Your task to perform on an android device: Open Youtube and go to "Your channel" Image 0: 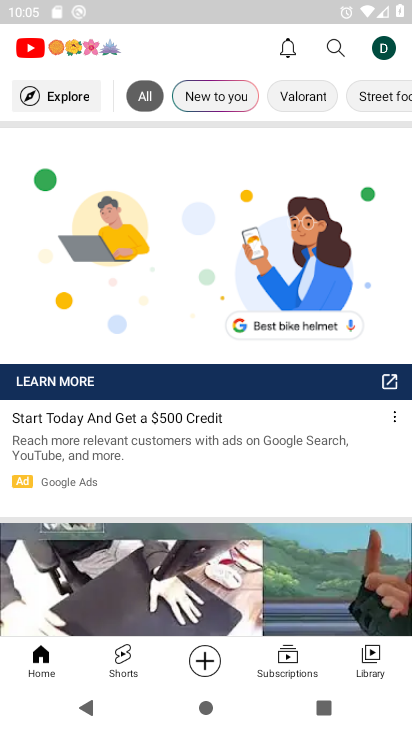
Step 0: press home button
Your task to perform on an android device: Open Youtube and go to "Your channel" Image 1: 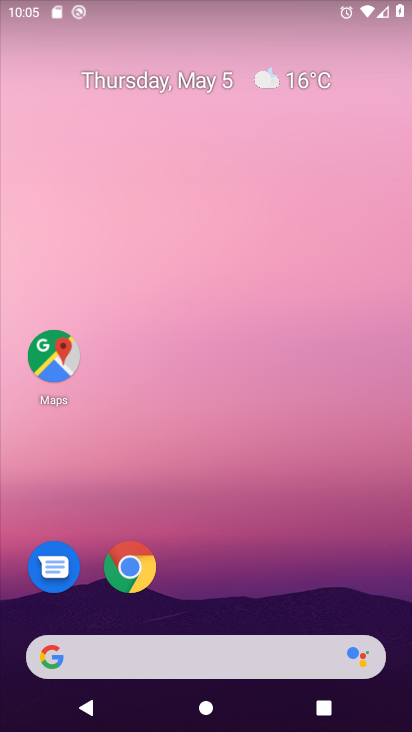
Step 1: drag from (257, 564) to (254, 24)
Your task to perform on an android device: Open Youtube and go to "Your channel" Image 2: 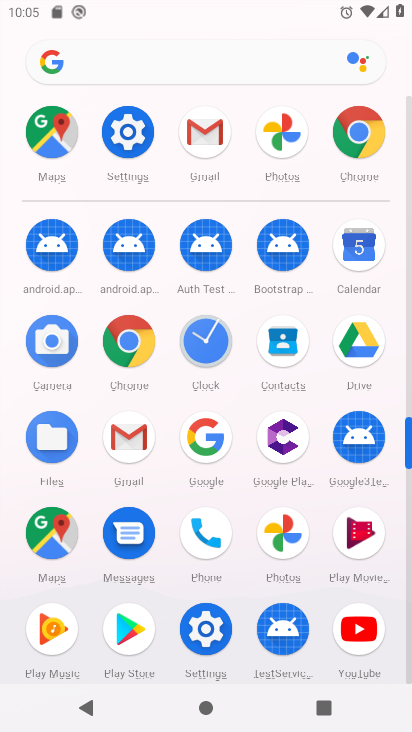
Step 2: click (355, 625)
Your task to perform on an android device: Open Youtube and go to "Your channel" Image 3: 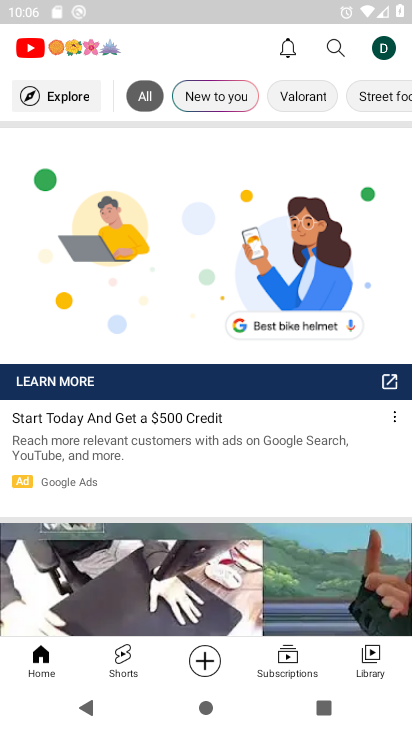
Step 3: click (381, 44)
Your task to perform on an android device: Open Youtube and go to "Your channel" Image 4: 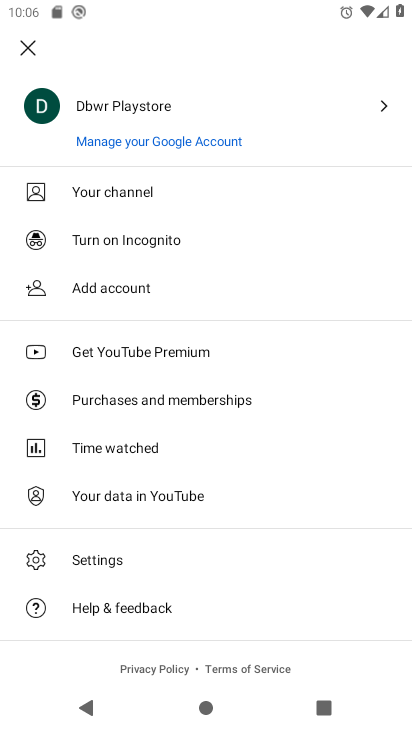
Step 4: click (178, 184)
Your task to perform on an android device: Open Youtube and go to "Your channel" Image 5: 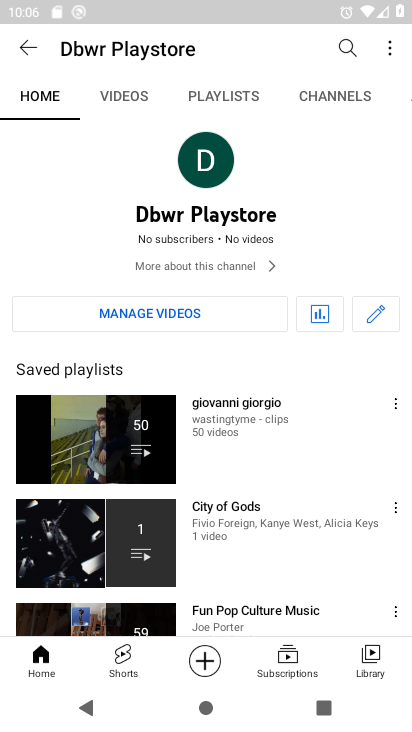
Step 5: task complete